Your task to perform on an android device: Go to Google Image 0: 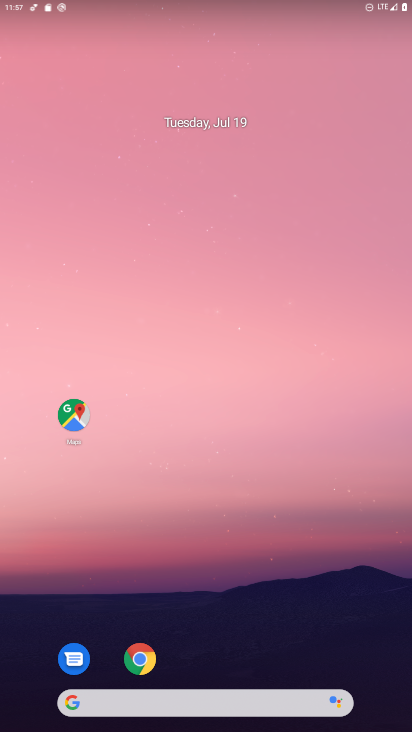
Step 0: drag from (290, 606) to (282, 130)
Your task to perform on an android device: Go to Google Image 1: 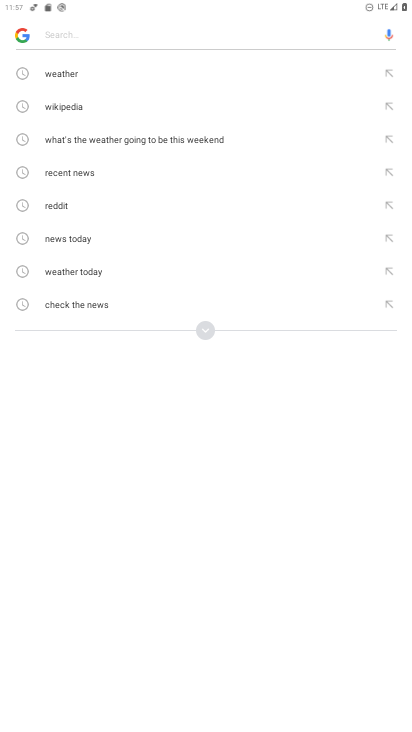
Step 1: press home button
Your task to perform on an android device: Go to Google Image 2: 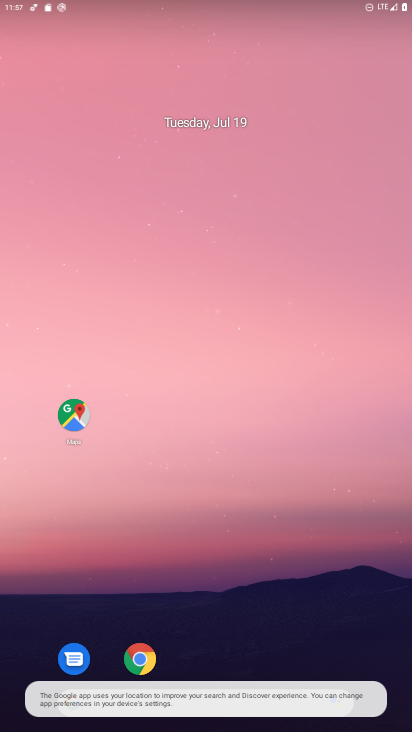
Step 2: drag from (272, 584) to (248, 48)
Your task to perform on an android device: Go to Google Image 3: 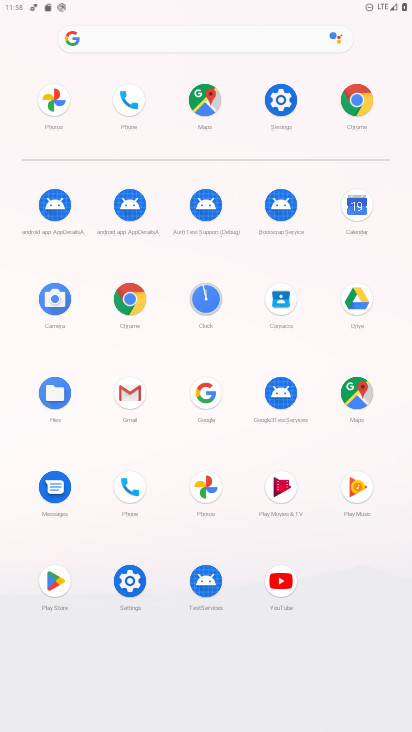
Step 3: click (211, 402)
Your task to perform on an android device: Go to Google Image 4: 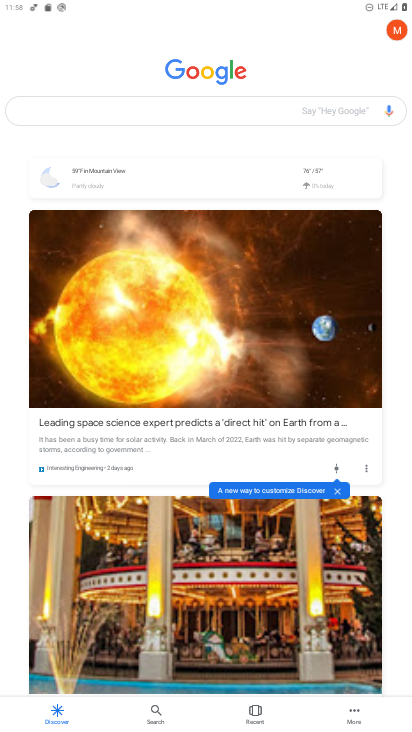
Step 4: task complete